Your task to perform on an android device: change keyboard looks Image 0: 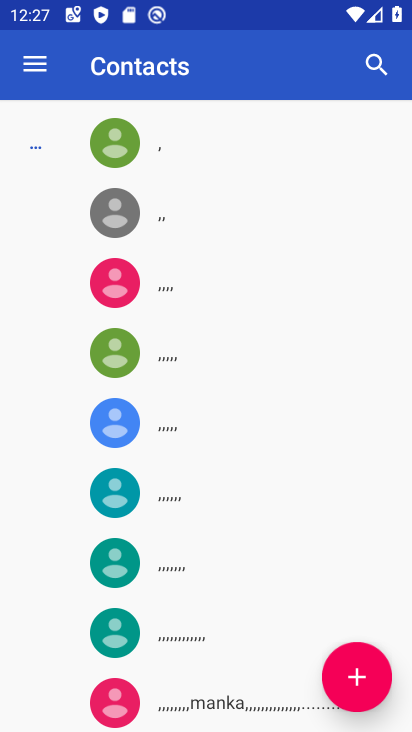
Step 0: press home button
Your task to perform on an android device: change keyboard looks Image 1: 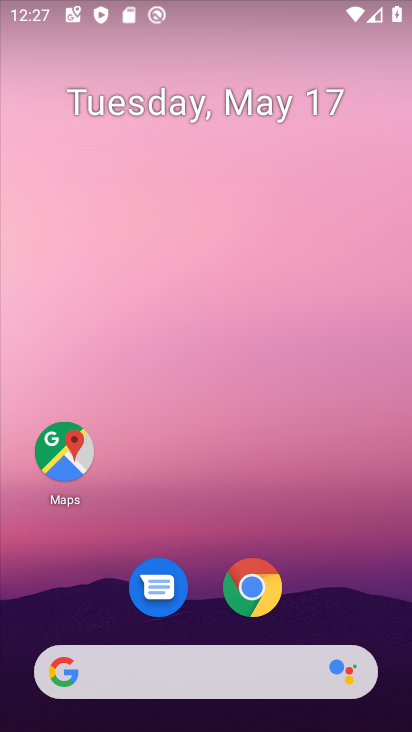
Step 1: drag from (223, 622) to (267, 41)
Your task to perform on an android device: change keyboard looks Image 2: 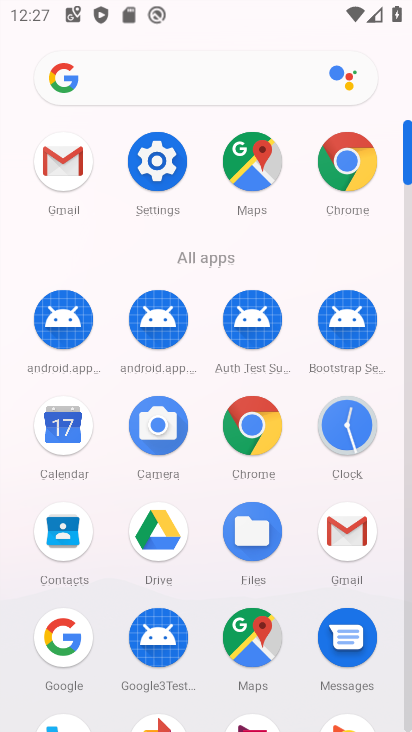
Step 2: click (151, 159)
Your task to perform on an android device: change keyboard looks Image 3: 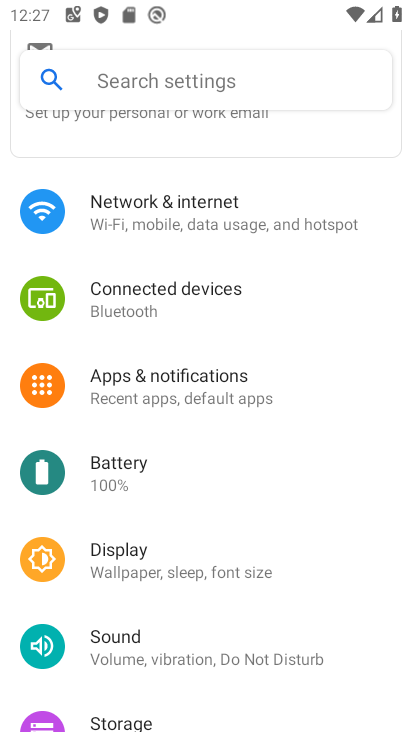
Step 3: drag from (195, 566) to (196, 150)
Your task to perform on an android device: change keyboard looks Image 4: 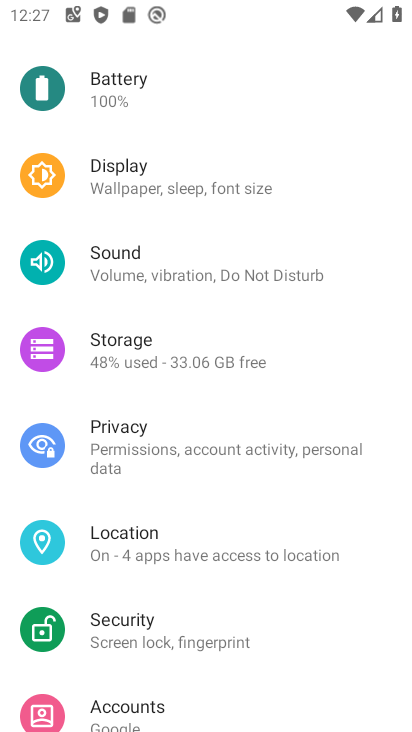
Step 4: click (169, 197)
Your task to perform on an android device: change keyboard looks Image 5: 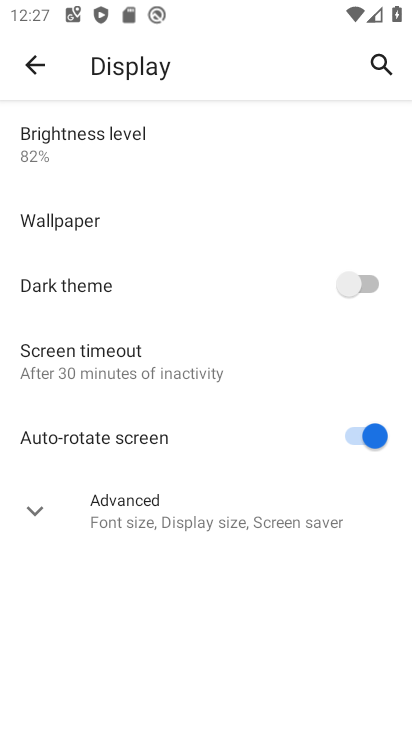
Step 5: click (181, 495)
Your task to perform on an android device: change keyboard looks Image 6: 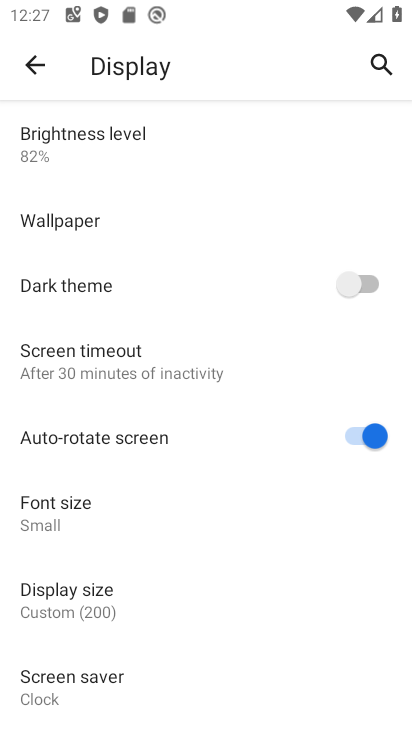
Step 6: click (25, 74)
Your task to perform on an android device: change keyboard looks Image 7: 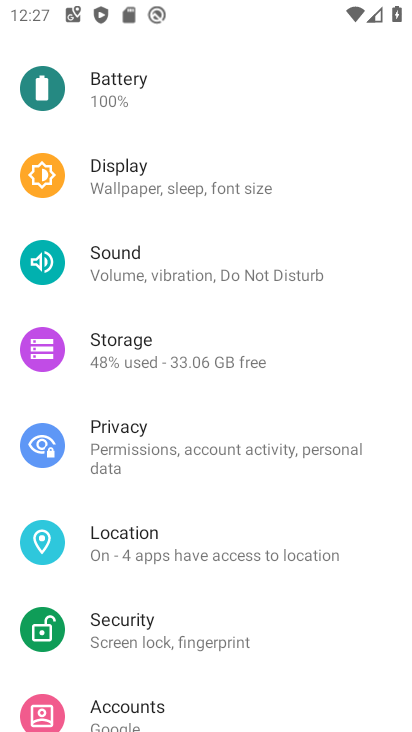
Step 7: drag from (154, 583) to (155, 38)
Your task to perform on an android device: change keyboard looks Image 8: 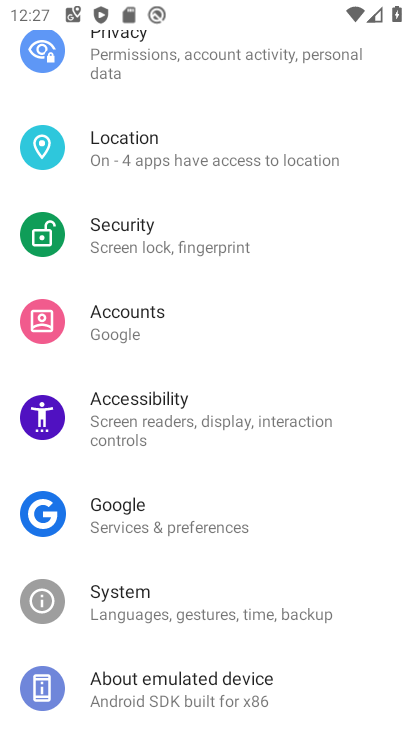
Step 8: click (161, 585)
Your task to perform on an android device: change keyboard looks Image 9: 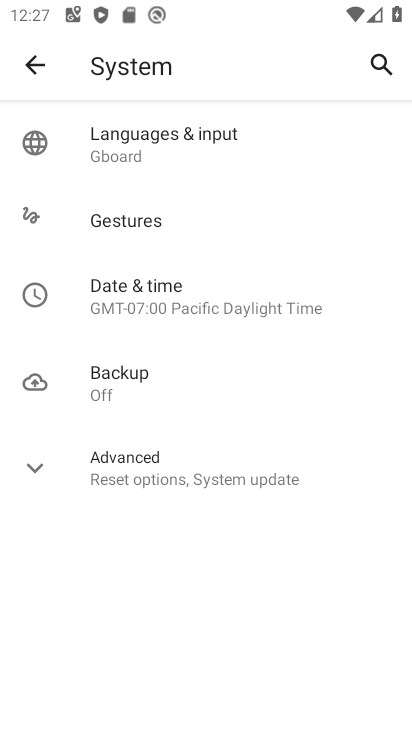
Step 9: click (128, 112)
Your task to perform on an android device: change keyboard looks Image 10: 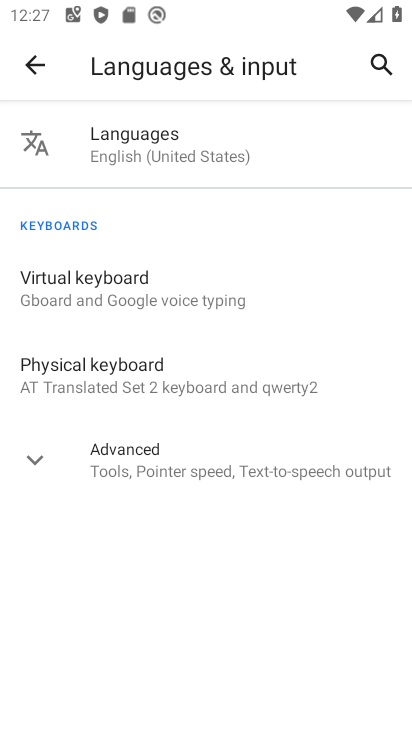
Step 10: click (126, 283)
Your task to perform on an android device: change keyboard looks Image 11: 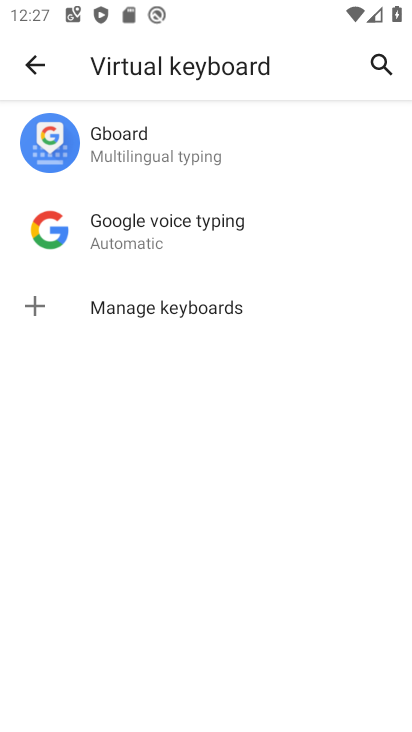
Step 11: click (142, 153)
Your task to perform on an android device: change keyboard looks Image 12: 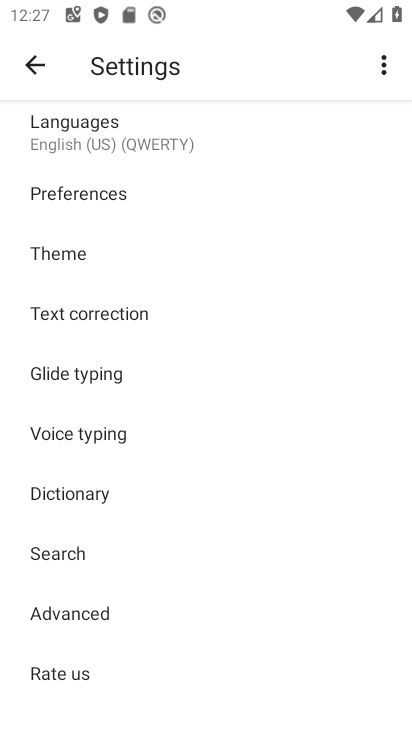
Step 12: click (83, 249)
Your task to perform on an android device: change keyboard looks Image 13: 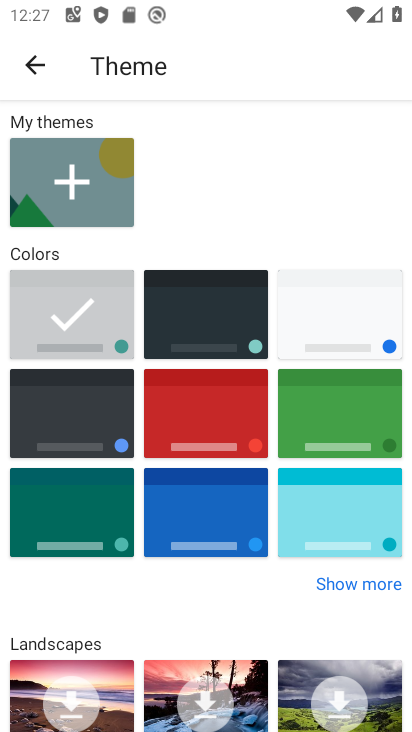
Step 13: click (66, 532)
Your task to perform on an android device: change keyboard looks Image 14: 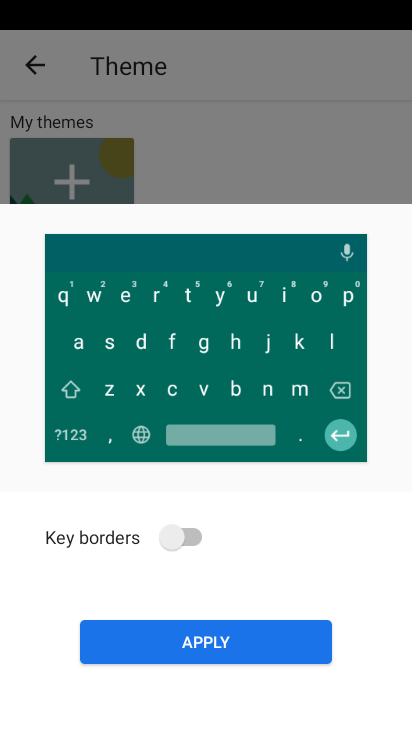
Step 14: click (275, 625)
Your task to perform on an android device: change keyboard looks Image 15: 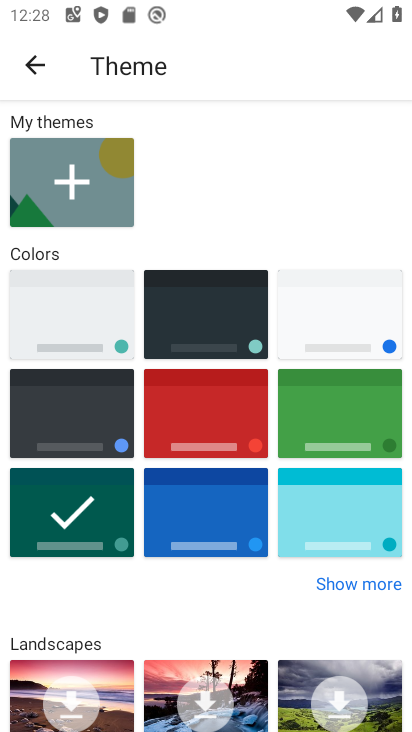
Step 15: task complete